Your task to perform on an android device: change the clock display to analog Image 0: 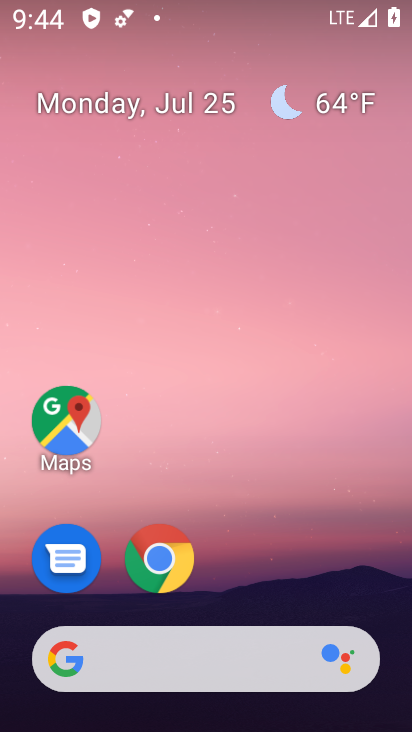
Step 0: drag from (350, 571) to (359, 123)
Your task to perform on an android device: change the clock display to analog Image 1: 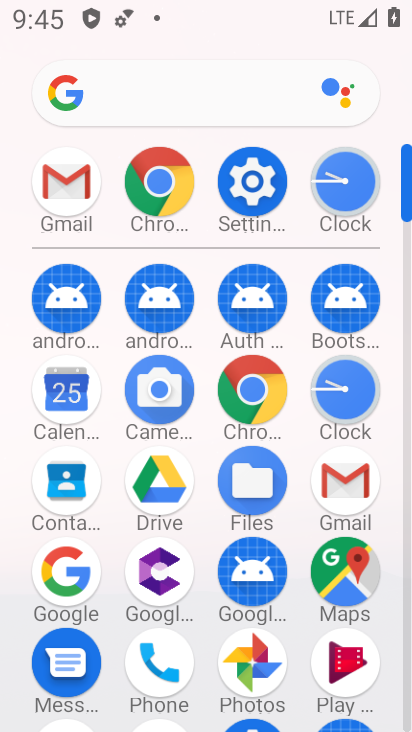
Step 1: click (344, 390)
Your task to perform on an android device: change the clock display to analog Image 2: 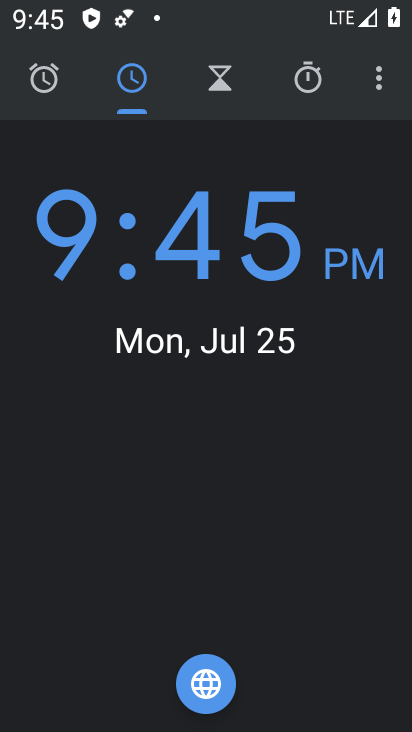
Step 2: click (382, 81)
Your task to perform on an android device: change the clock display to analog Image 3: 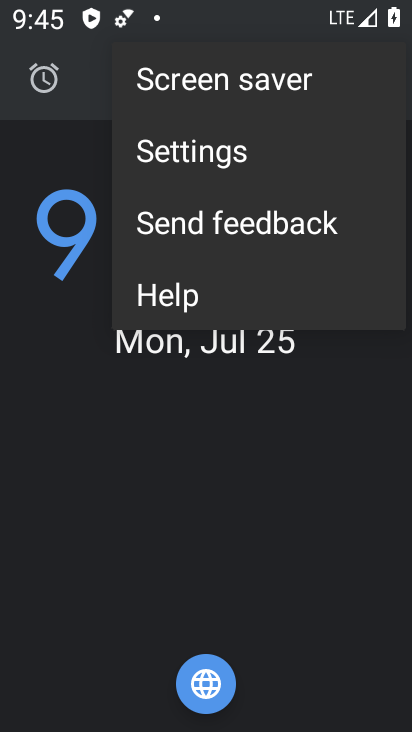
Step 3: click (248, 163)
Your task to perform on an android device: change the clock display to analog Image 4: 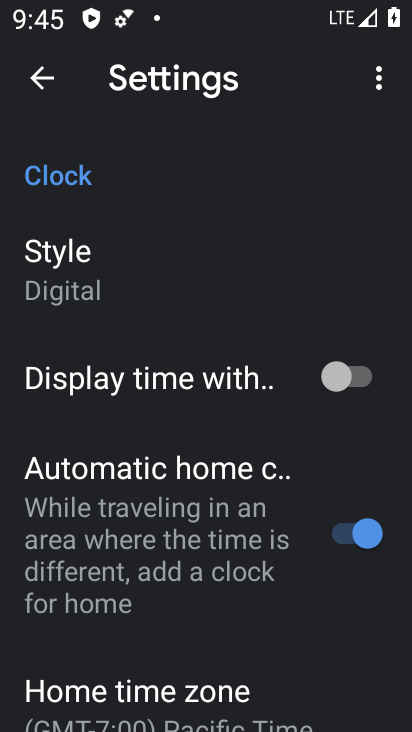
Step 4: drag from (252, 445) to (253, 336)
Your task to perform on an android device: change the clock display to analog Image 5: 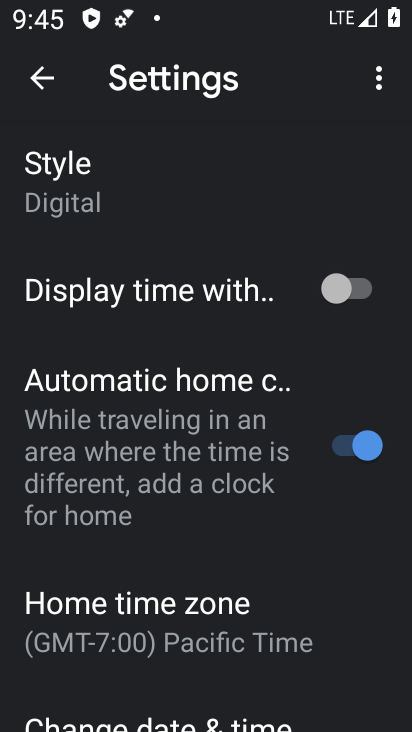
Step 5: drag from (288, 561) to (286, 417)
Your task to perform on an android device: change the clock display to analog Image 6: 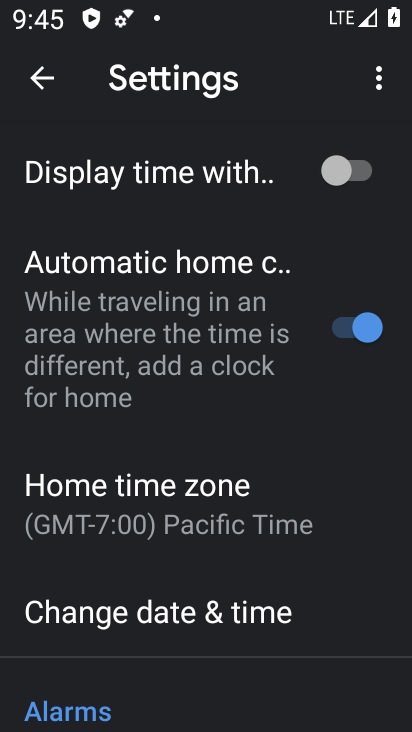
Step 6: drag from (290, 570) to (294, 457)
Your task to perform on an android device: change the clock display to analog Image 7: 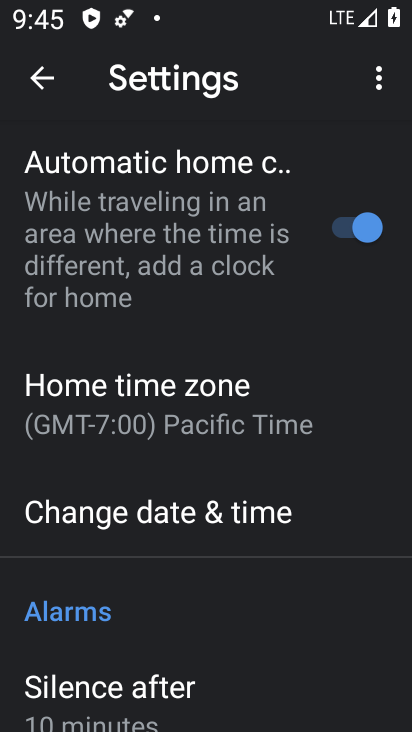
Step 7: drag from (309, 582) to (320, 452)
Your task to perform on an android device: change the clock display to analog Image 8: 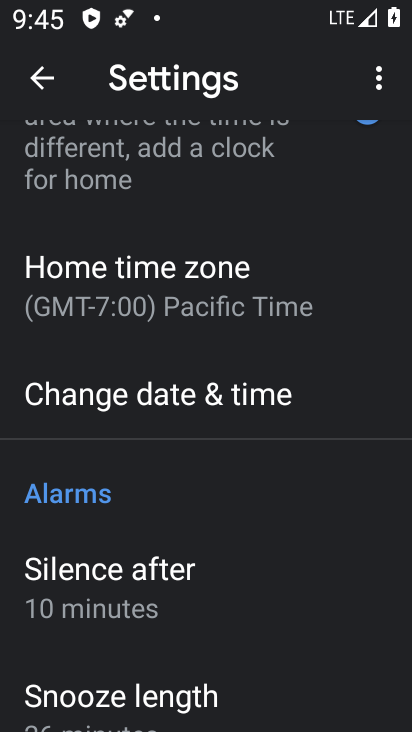
Step 8: drag from (296, 227) to (321, 383)
Your task to perform on an android device: change the clock display to analog Image 9: 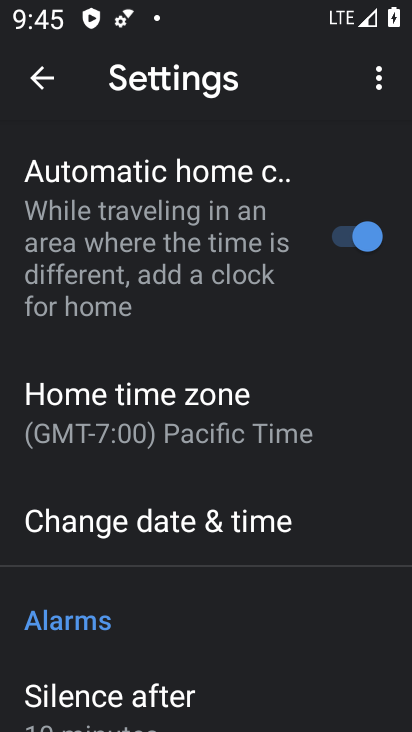
Step 9: drag from (317, 185) to (299, 338)
Your task to perform on an android device: change the clock display to analog Image 10: 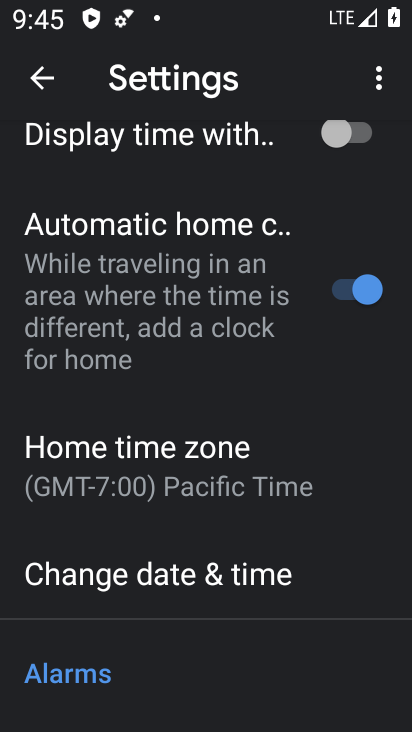
Step 10: drag from (302, 232) to (307, 359)
Your task to perform on an android device: change the clock display to analog Image 11: 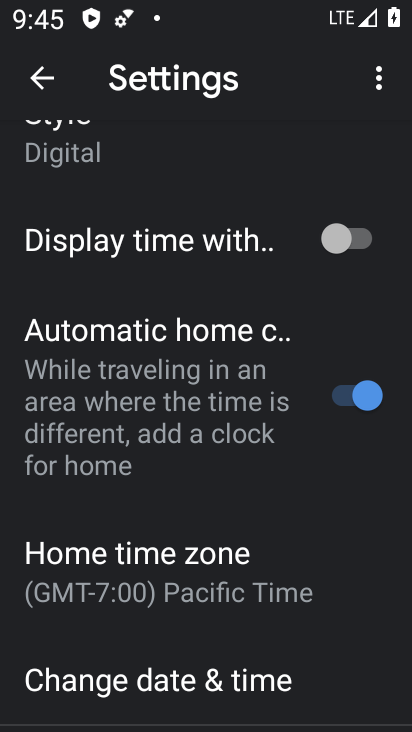
Step 11: drag from (226, 177) to (236, 351)
Your task to perform on an android device: change the clock display to analog Image 12: 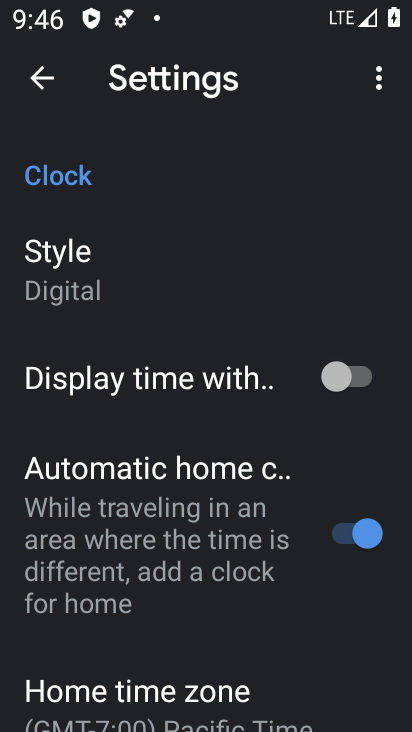
Step 12: click (158, 270)
Your task to perform on an android device: change the clock display to analog Image 13: 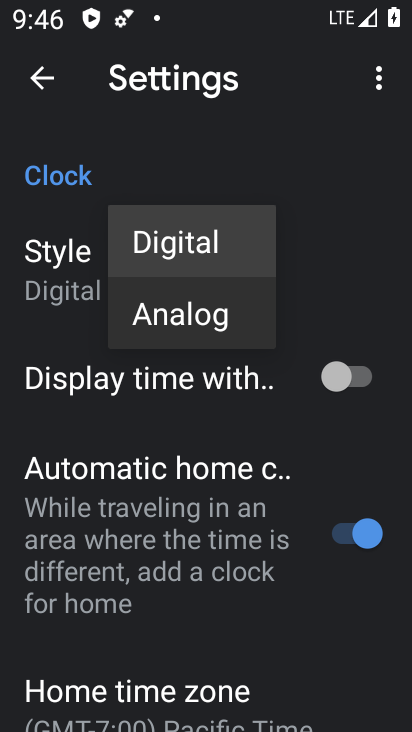
Step 13: click (189, 311)
Your task to perform on an android device: change the clock display to analog Image 14: 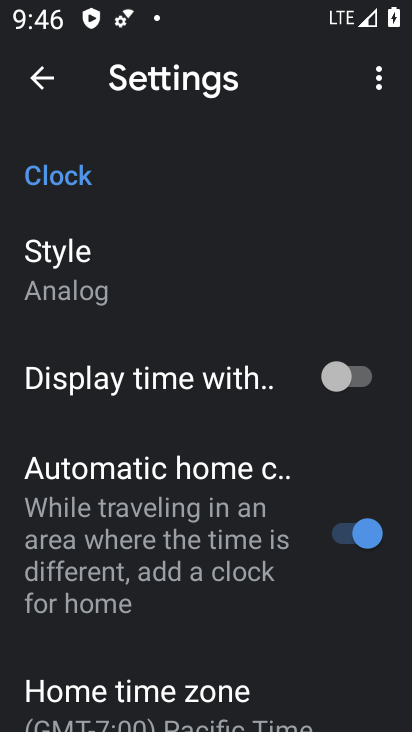
Step 14: task complete